Your task to perform on an android device: Search for "sony triple a" on amazon, select the first entry, add it to the cart, then select checkout. Image 0: 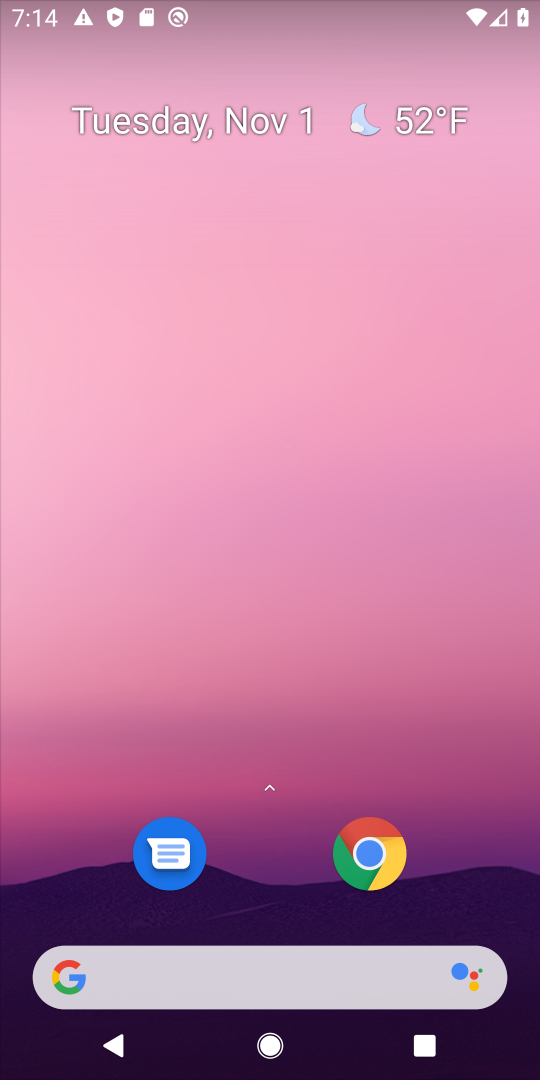
Step 0: click (286, 993)
Your task to perform on an android device: Search for "sony triple a" on amazon, select the first entry, add it to the cart, then select checkout. Image 1: 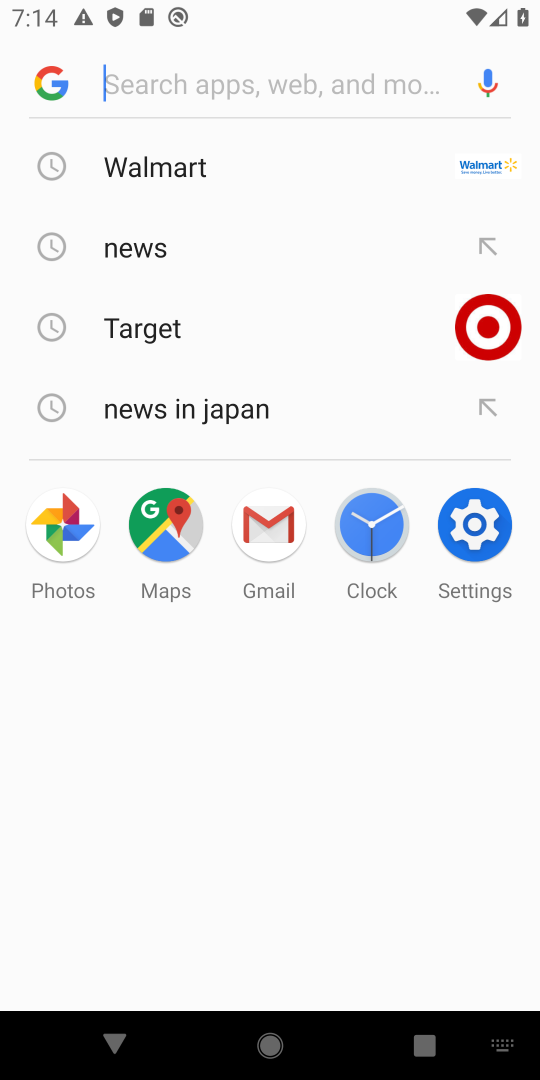
Step 1: type "amazone"
Your task to perform on an android device: Search for "sony triple a" on amazon, select the first entry, add it to the cart, then select checkout. Image 2: 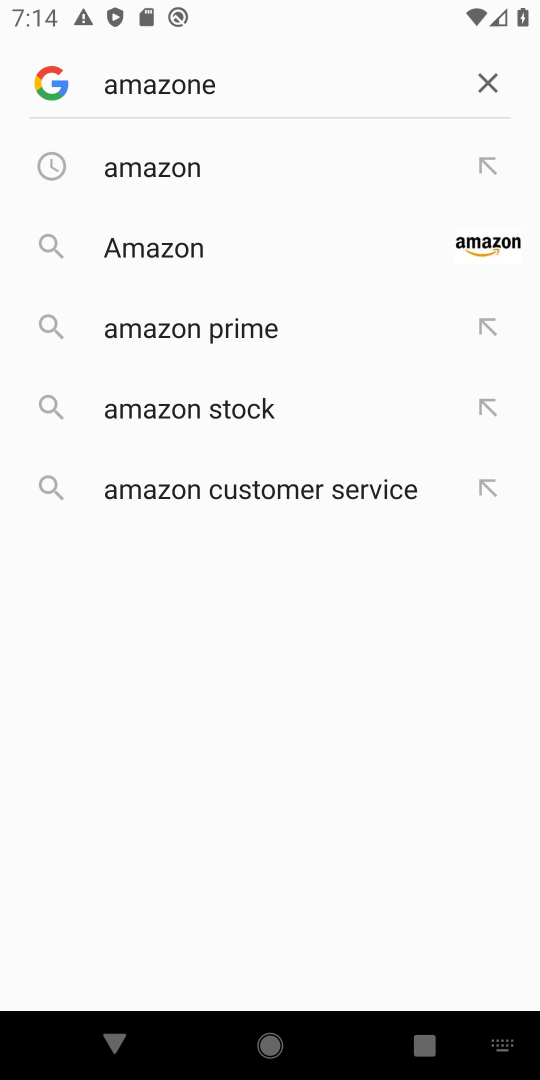
Step 2: click (205, 179)
Your task to perform on an android device: Search for "sony triple a" on amazon, select the first entry, add it to the cart, then select checkout. Image 3: 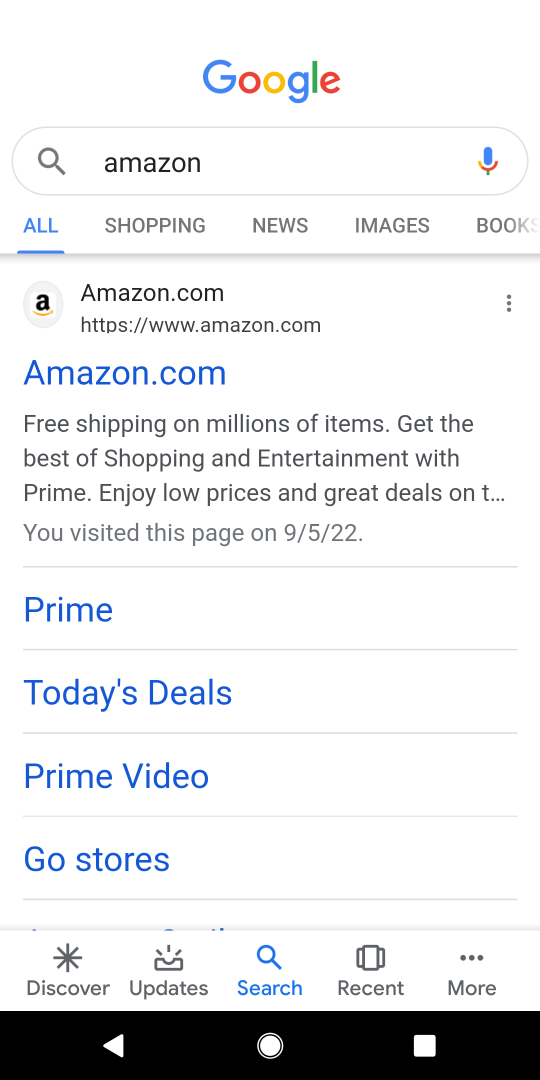
Step 3: click (195, 369)
Your task to perform on an android device: Search for "sony triple a" on amazon, select the first entry, add it to the cart, then select checkout. Image 4: 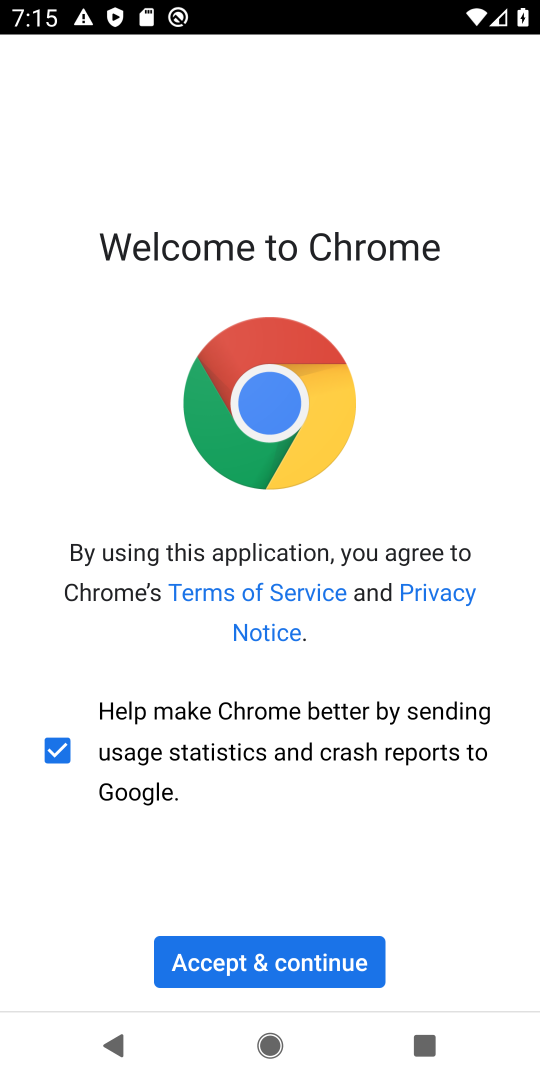
Step 4: click (325, 947)
Your task to perform on an android device: Search for "sony triple a" on amazon, select the first entry, add it to the cart, then select checkout. Image 5: 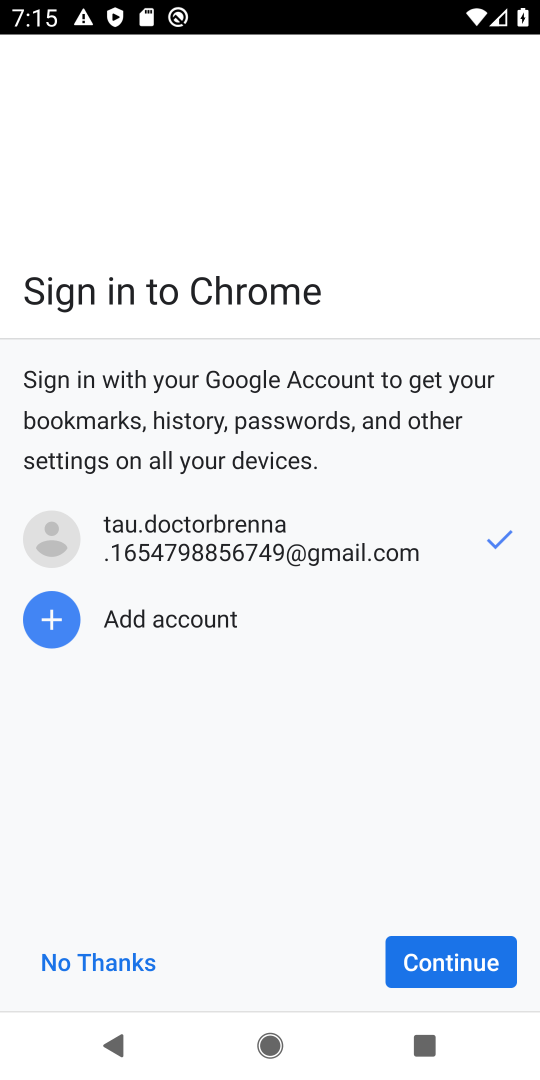
Step 5: click (451, 962)
Your task to perform on an android device: Search for "sony triple a" on amazon, select the first entry, add it to the cart, then select checkout. Image 6: 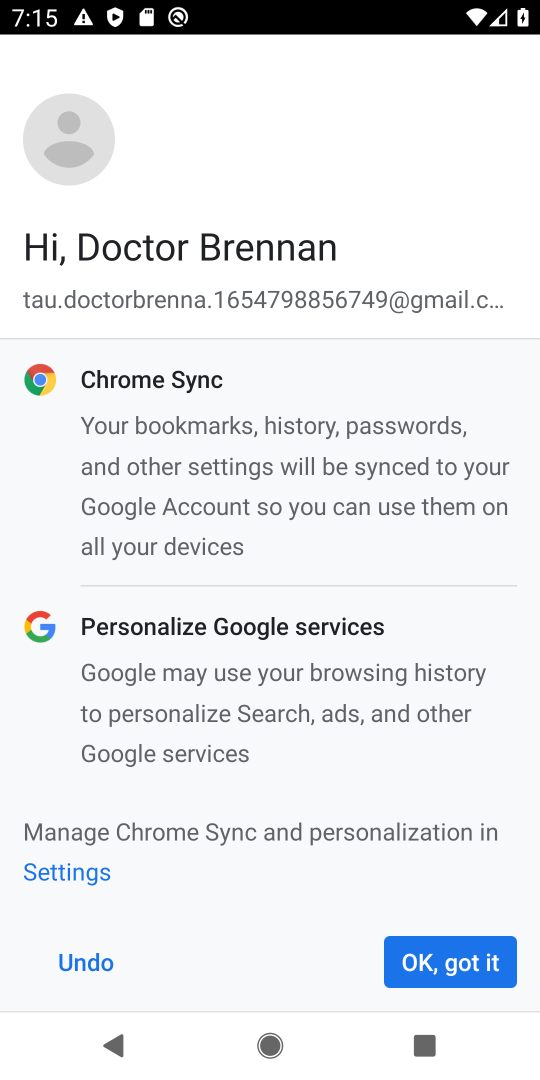
Step 6: click (485, 952)
Your task to perform on an android device: Search for "sony triple a" on amazon, select the first entry, add it to the cart, then select checkout. Image 7: 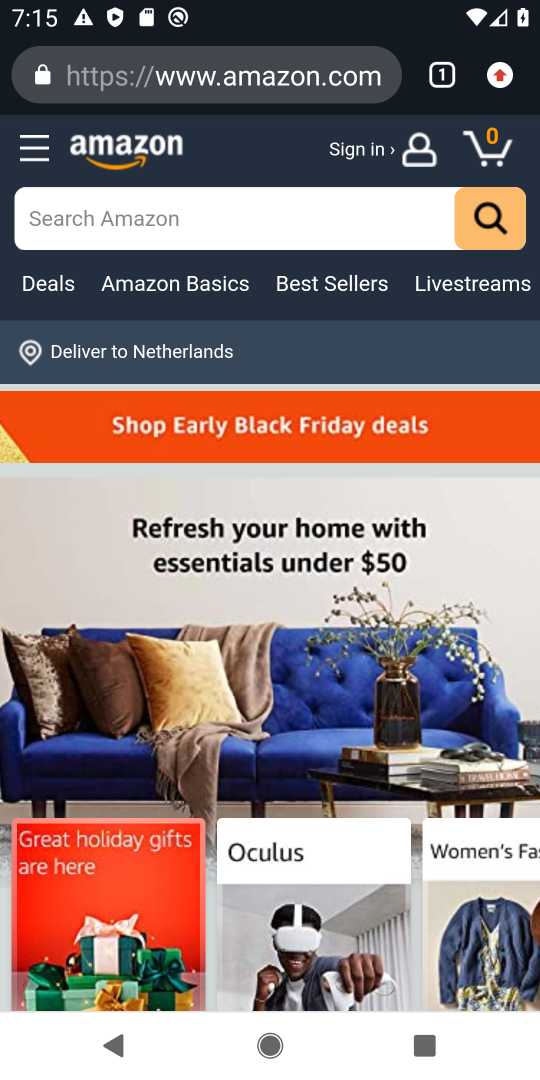
Step 7: click (175, 241)
Your task to perform on an android device: Search for "sony triple a" on amazon, select the first entry, add it to the cart, then select checkout. Image 8: 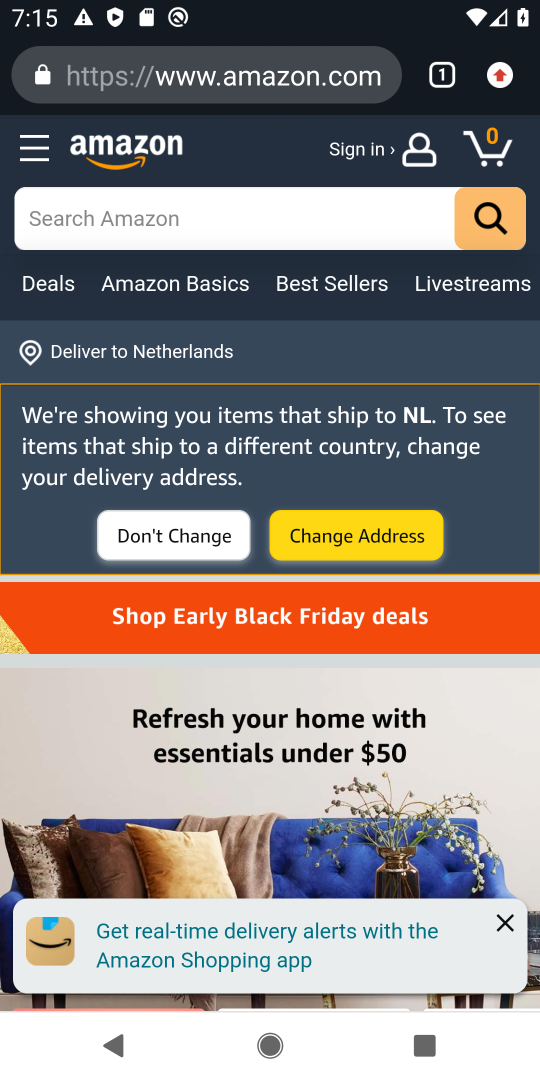
Step 8: type "sony triple"
Your task to perform on an android device: Search for "sony triple a" on amazon, select the first entry, add it to the cart, then select checkout. Image 9: 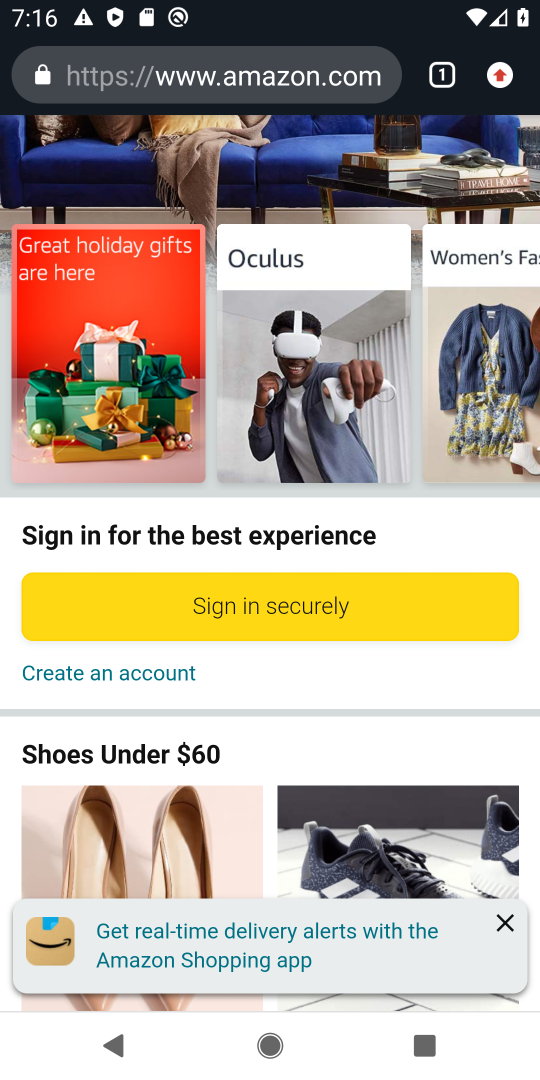
Step 9: drag from (303, 493) to (338, 970)
Your task to perform on an android device: Search for "sony triple a" on amazon, select the first entry, add it to the cart, then select checkout. Image 10: 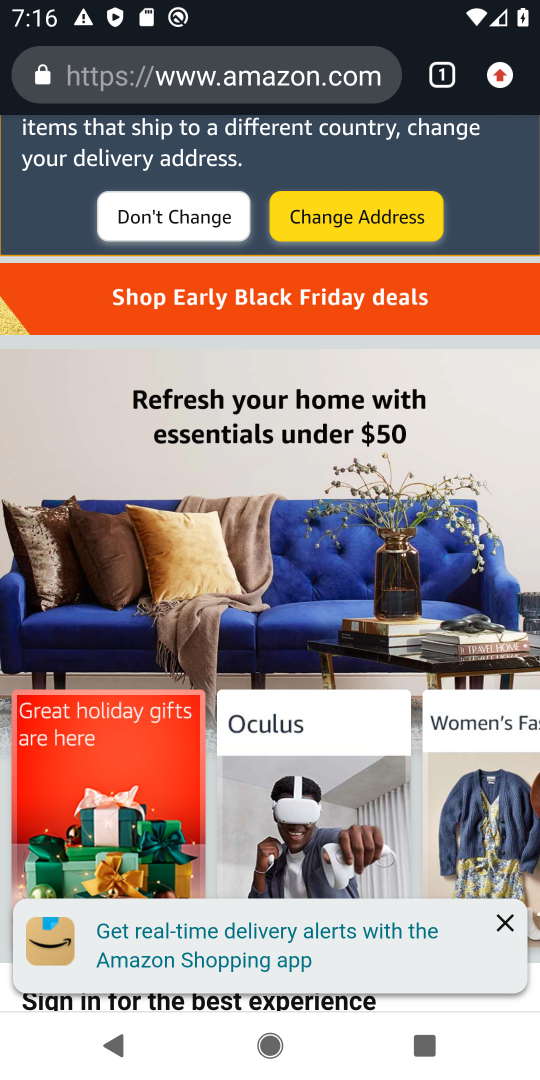
Step 10: click (212, 237)
Your task to perform on an android device: Search for "sony triple a" on amazon, select the first entry, add it to the cart, then select checkout. Image 11: 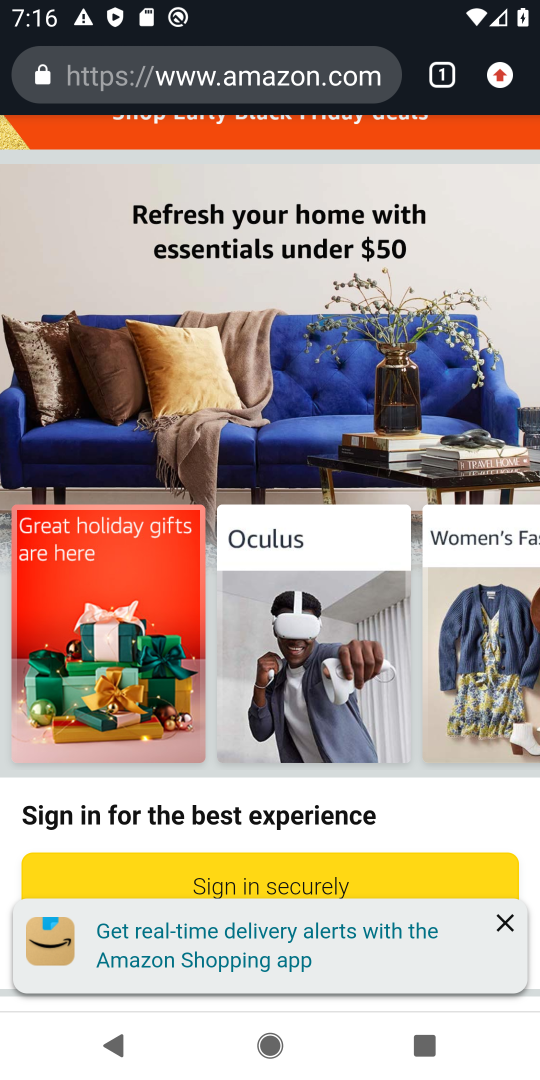
Step 11: click (496, 922)
Your task to perform on an android device: Search for "sony triple a" on amazon, select the first entry, add it to the cart, then select checkout. Image 12: 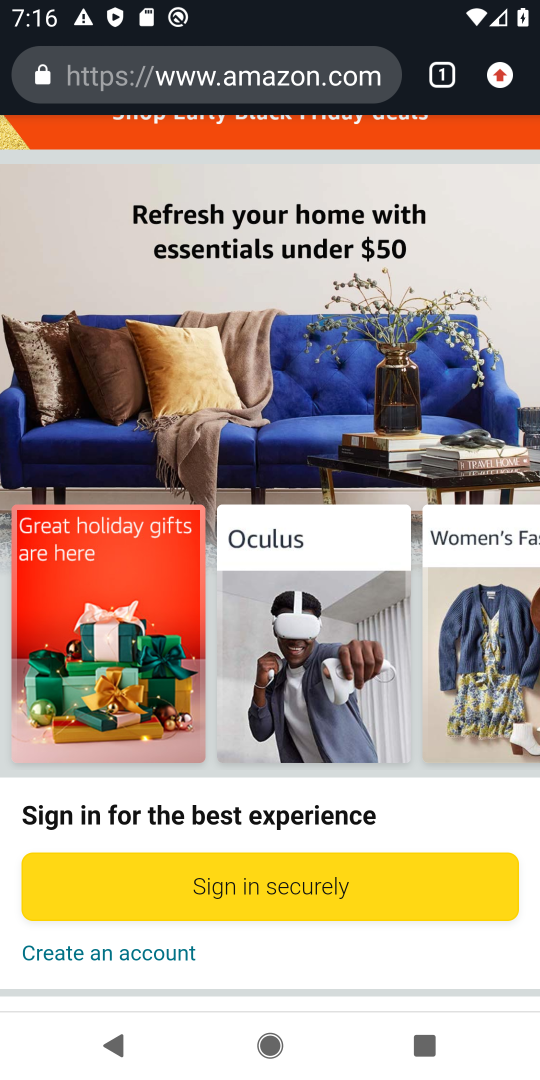
Step 12: task complete